Your task to perform on an android device: change the clock display to digital Image 0: 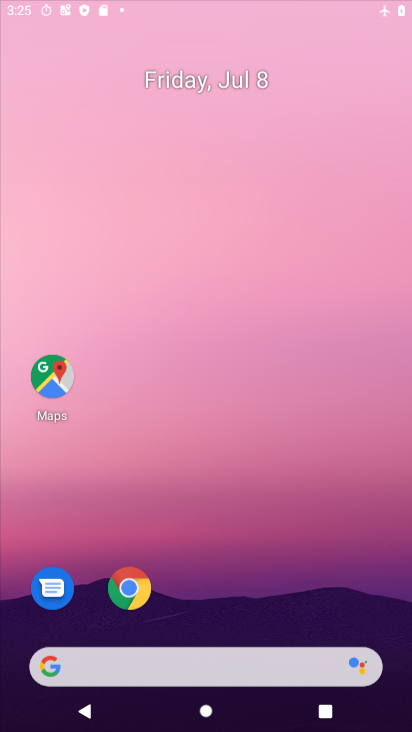
Step 0: press home button
Your task to perform on an android device: change the clock display to digital Image 1: 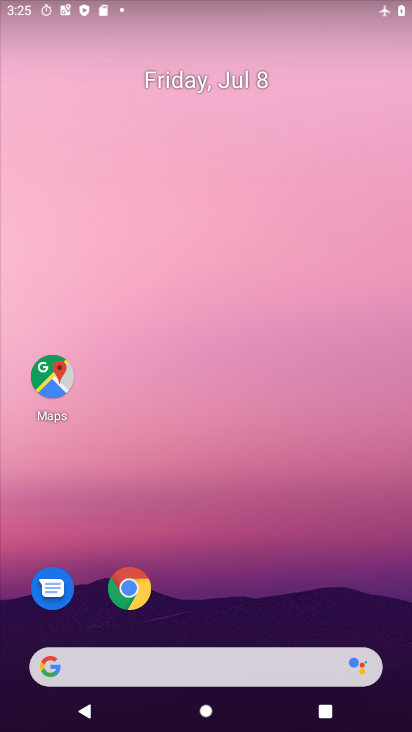
Step 1: drag from (222, 627) to (248, 70)
Your task to perform on an android device: change the clock display to digital Image 2: 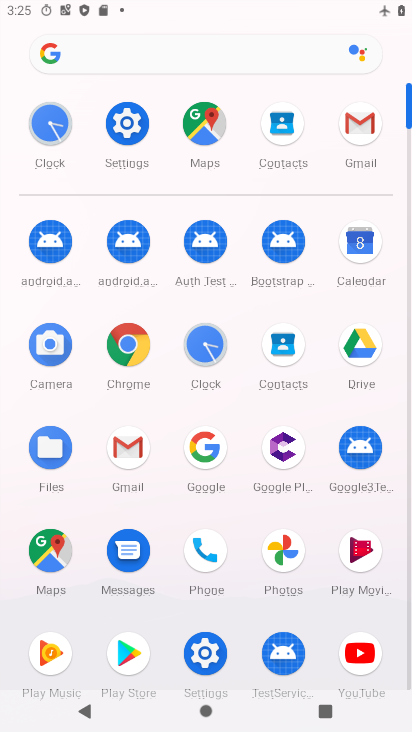
Step 2: click (49, 136)
Your task to perform on an android device: change the clock display to digital Image 3: 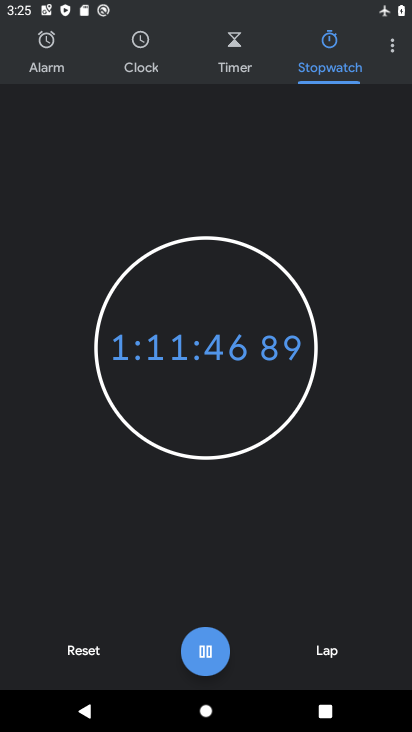
Step 3: click (394, 46)
Your task to perform on an android device: change the clock display to digital Image 4: 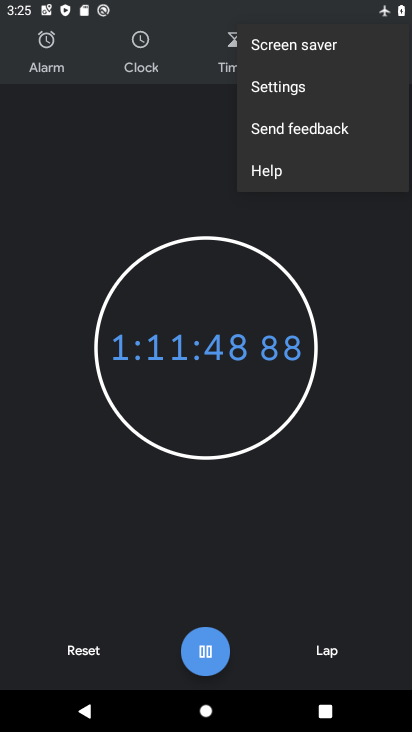
Step 4: click (288, 88)
Your task to perform on an android device: change the clock display to digital Image 5: 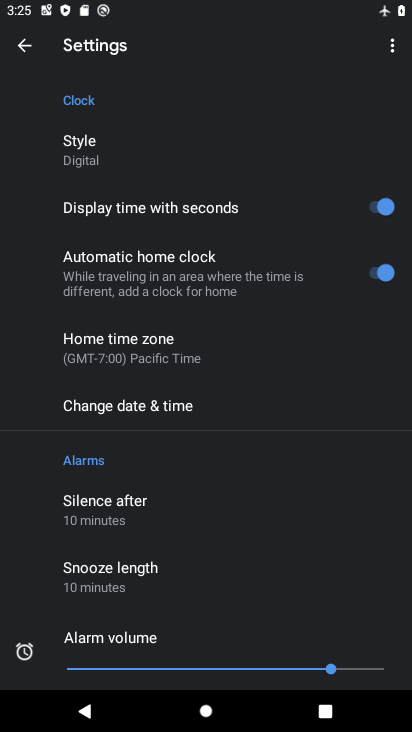
Step 5: click (82, 164)
Your task to perform on an android device: change the clock display to digital Image 6: 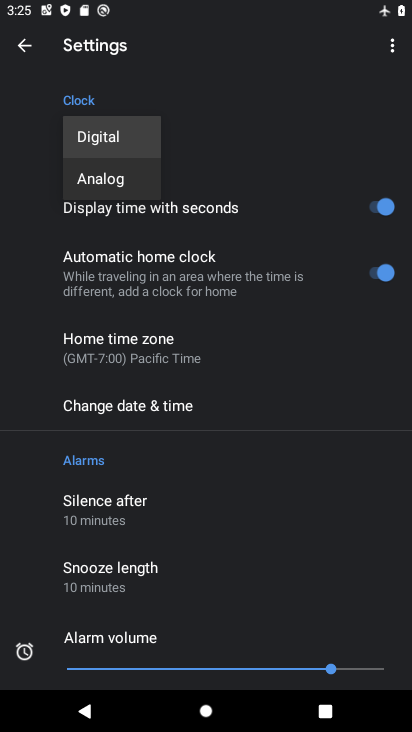
Step 6: task complete